Your task to perform on an android device: Check the news Image 0: 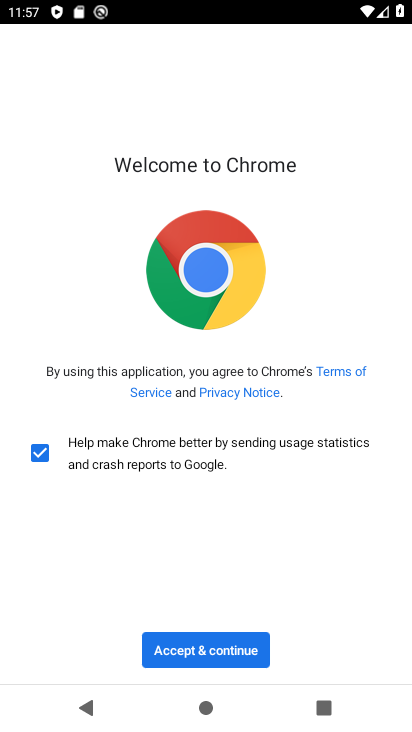
Step 0: click (334, 567)
Your task to perform on an android device: Check the news Image 1: 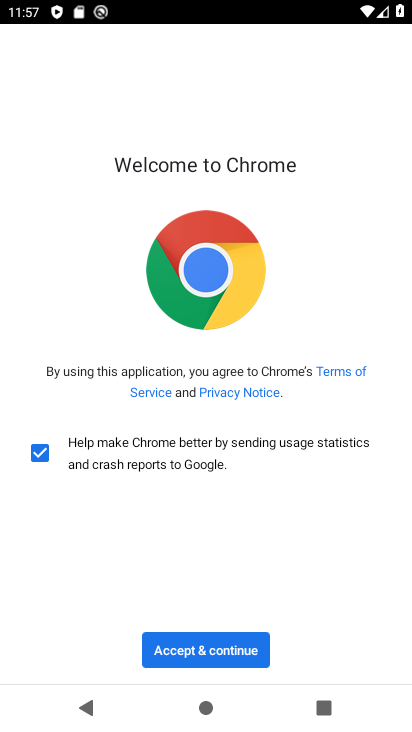
Step 1: click (201, 664)
Your task to perform on an android device: Check the news Image 2: 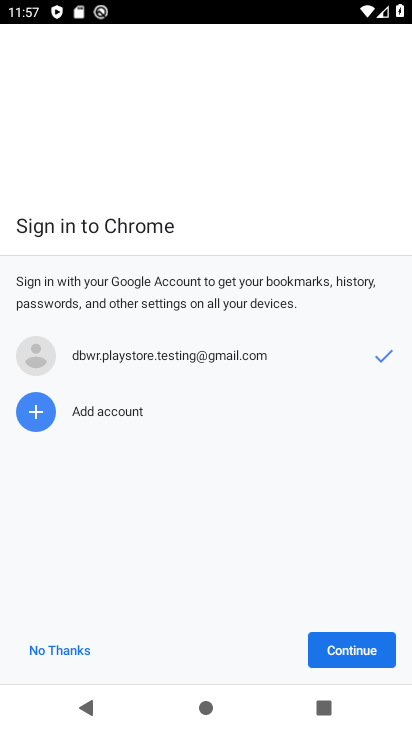
Step 2: click (53, 648)
Your task to perform on an android device: Check the news Image 3: 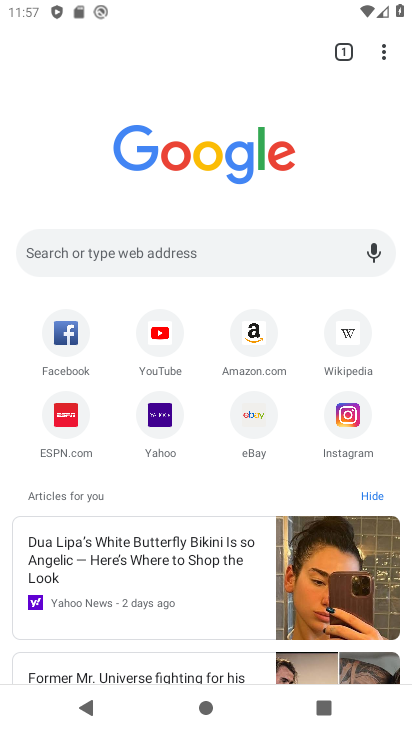
Step 3: drag from (232, 502) to (231, 170)
Your task to perform on an android device: Check the news Image 4: 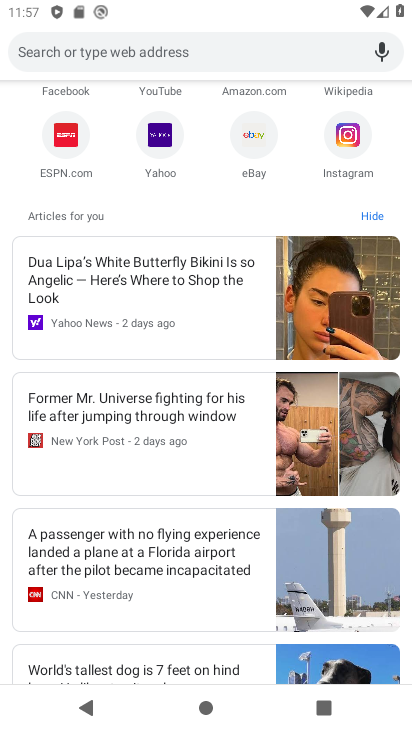
Step 4: drag from (202, 215) to (409, 538)
Your task to perform on an android device: Check the news Image 5: 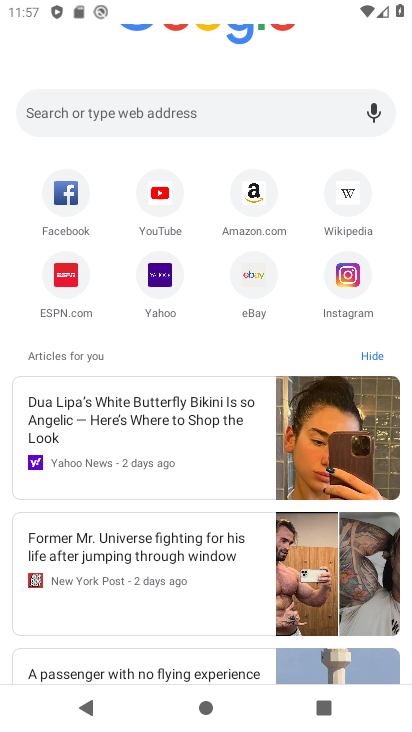
Step 5: press home button
Your task to perform on an android device: Check the news Image 6: 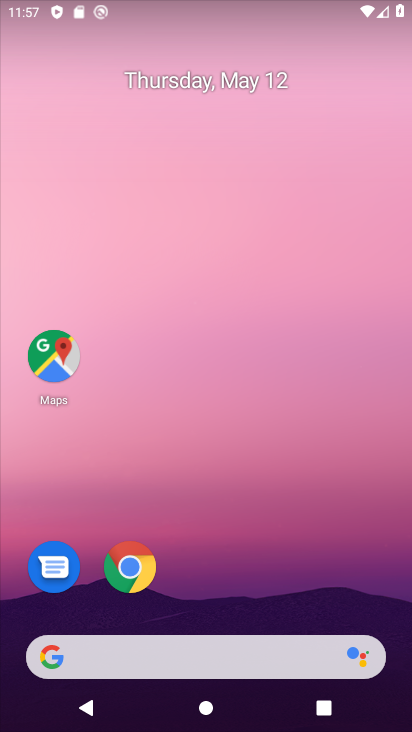
Step 6: drag from (196, 615) to (243, 130)
Your task to perform on an android device: Check the news Image 7: 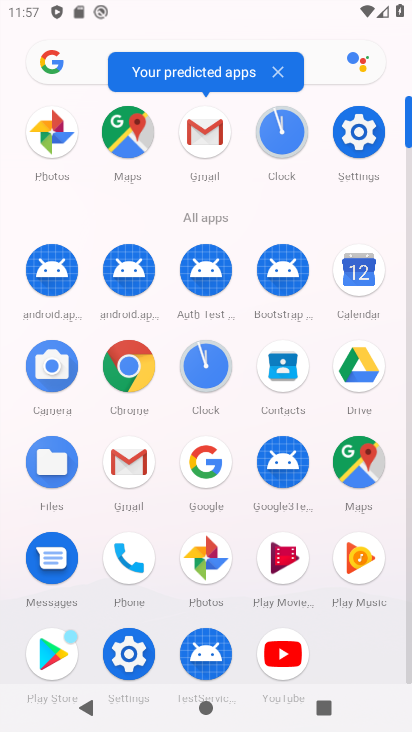
Step 7: click (83, 61)
Your task to perform on an android device: Check the news Image 8: 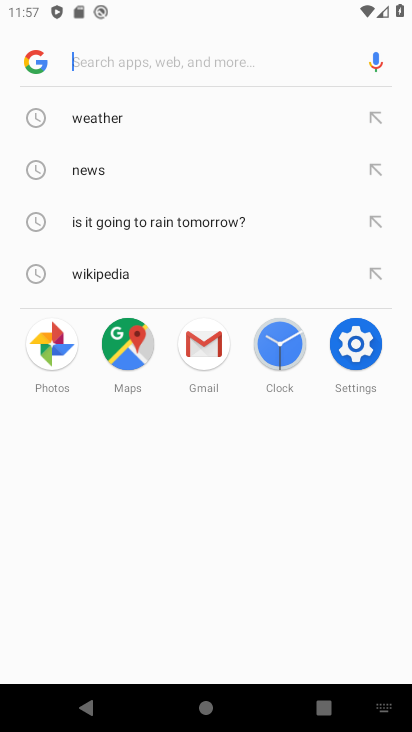
Step 8: click (116, 159)
Your task to perform on an android device: Check the news Image 9: 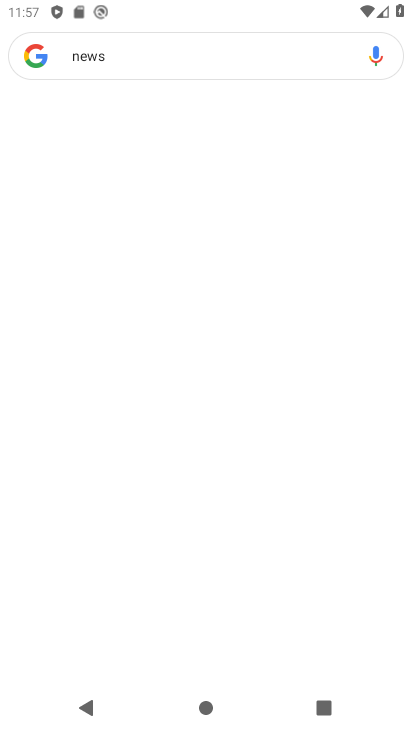
Step 9: task complete